Your task to perform on an android device: Open Youtube and go to the subscriptions tab Image 0: 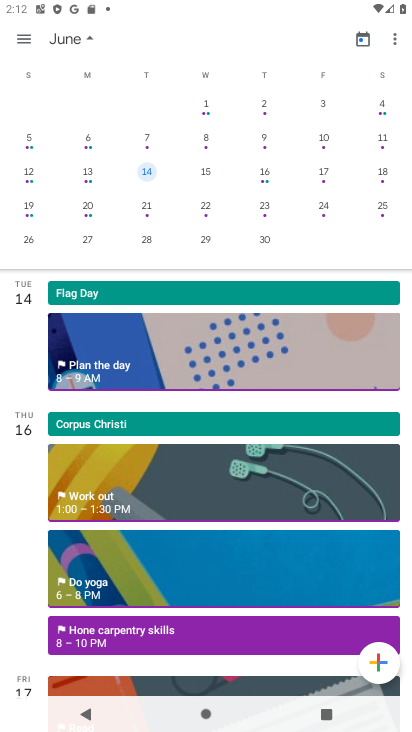
Step 0: press home button
Your task to perform on an android device: Open Youtube and go to the subscriptions tab Image 1: 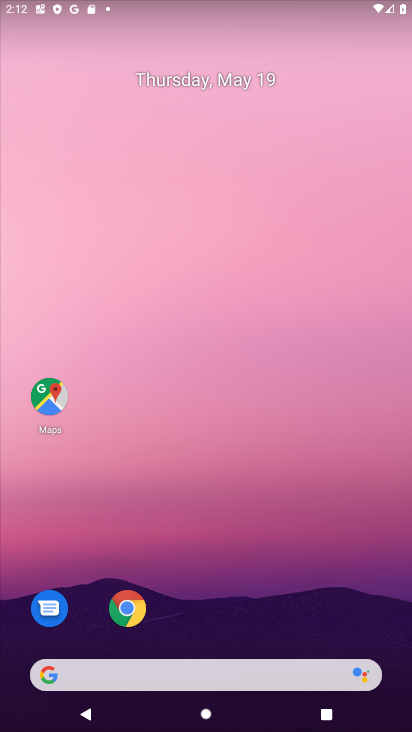
Step 1: drag from (221, 634) to (161, 12)
Your task to perform on an android device: Open Youtube and go to the subscriptions tab Image 2: 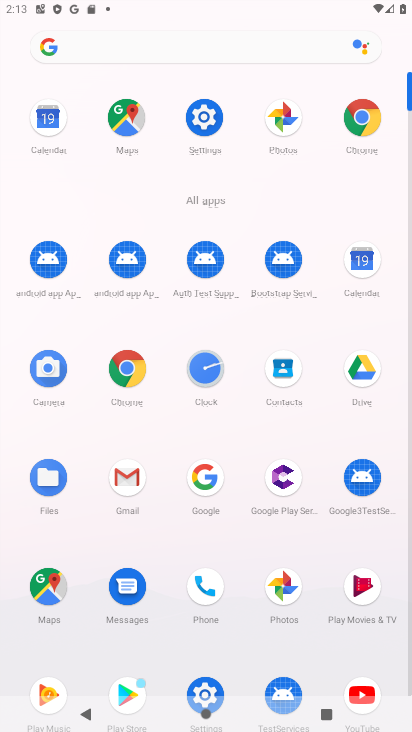
Step 2: click (356, 685)
Your task to perform on an android device: Open Youtube and go to the subscriptions tab Image 3: 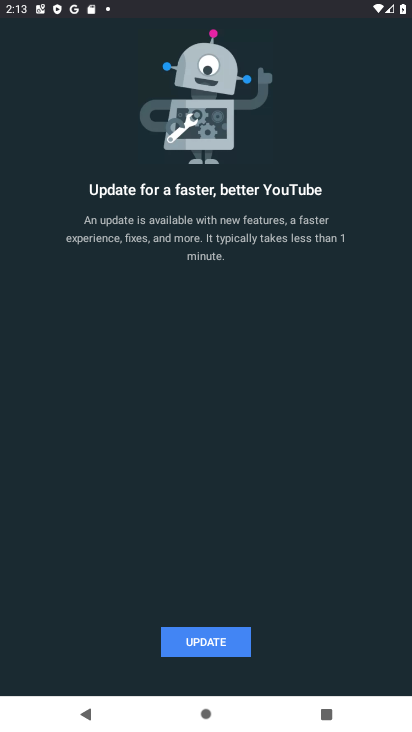
Step 3: click (220, 647)
Your task to perform on an android device: Open Youtube and go to the subscriptions tab Image 4: 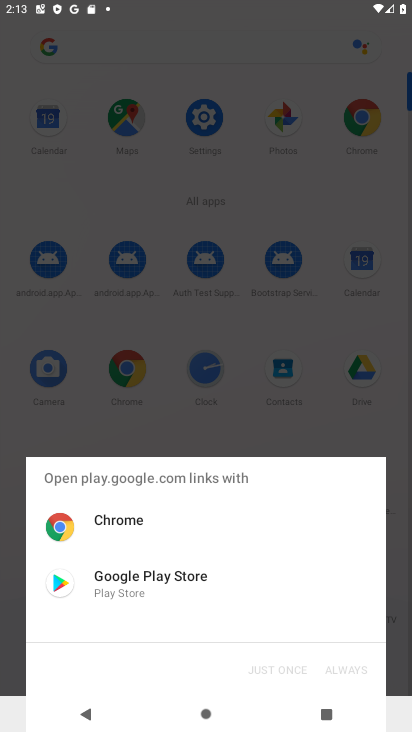
Step 4: click (211, 592)
Your task to perform on an android device: Open Youtube and go to the subscriptions tab Image 5: 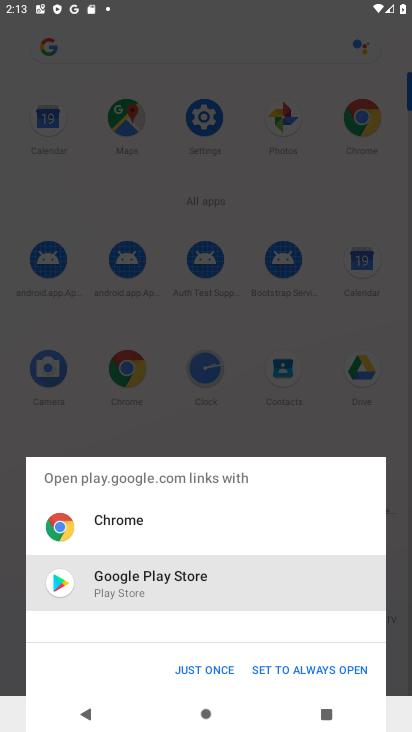
Step 5: click (221, 669)
Your task to perform on an android device: Open Youtube and go to the subscriptions tab Image 6: 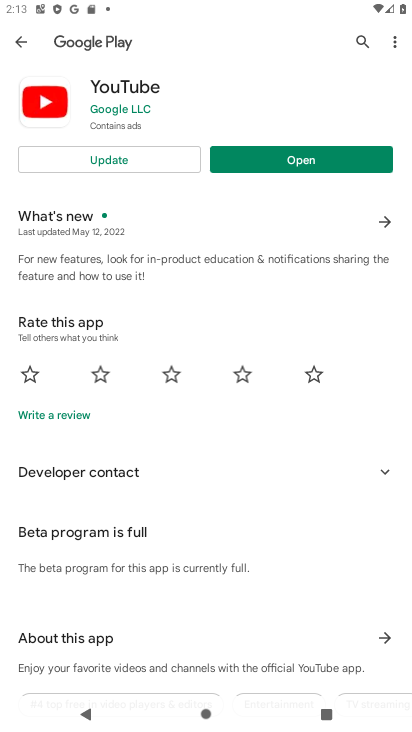
Step 6: click (128, 156)
Your task to perform on an android device: Open Youtube and go to the subscriptions tab Image 7: 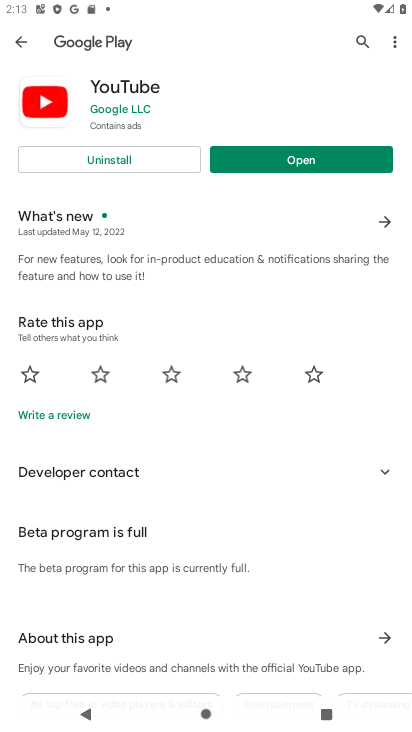
Step 7: click (320, 166)
Your task to perform on an android device: Open Youtube and go to the subscriptions tab Image 8: 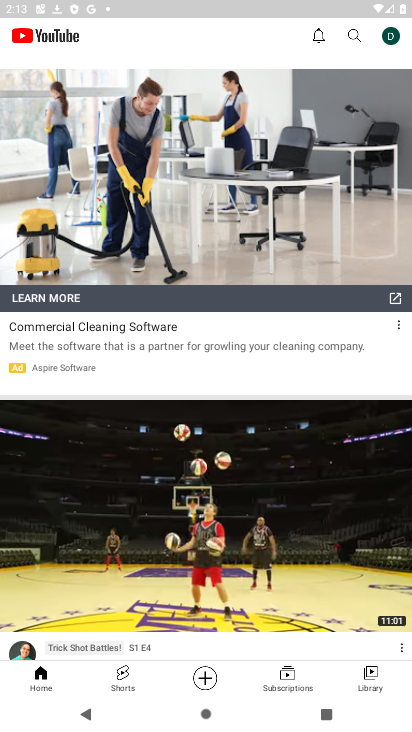
Step 8: click (286, 673)
Your task to perform on an android device: Open Youtube and go to the subscriptions tab Image 9: 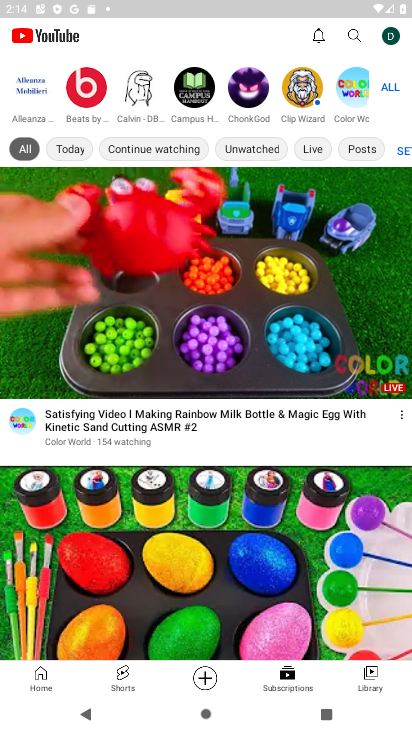
Step 9: task complete